Your task to perform on an android device: Play the last video I watched on Youtube Image 0: 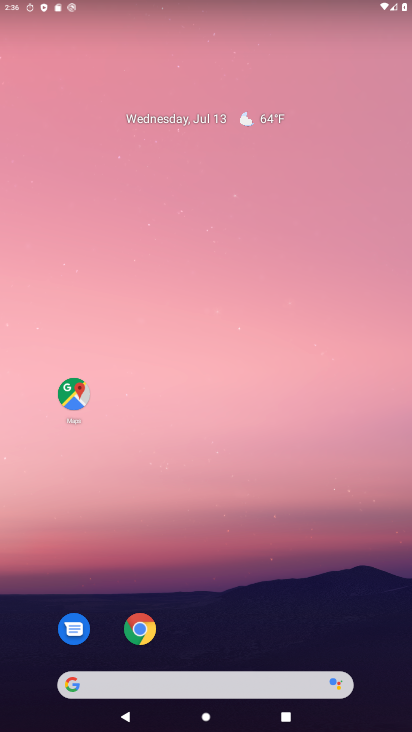
Step 0: drag from (289, 685) to (291, 87)
Your task to perform on an android device: Play the last video I watched on Youtube Image 1: 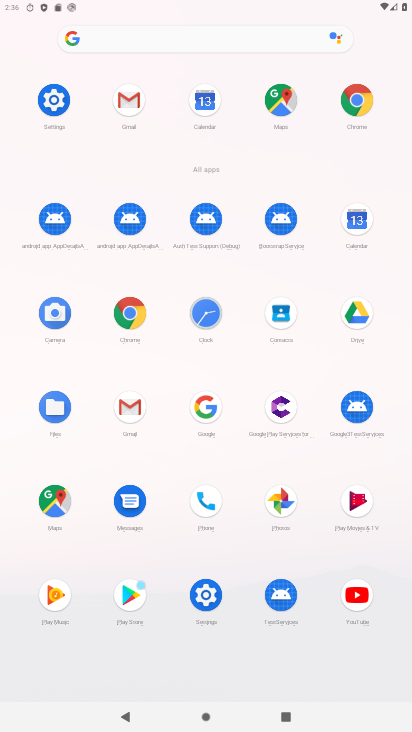
Step 1: click (355, 595)
Your task to perform on an android device: Play the last video I watched on Youtube Image 2: 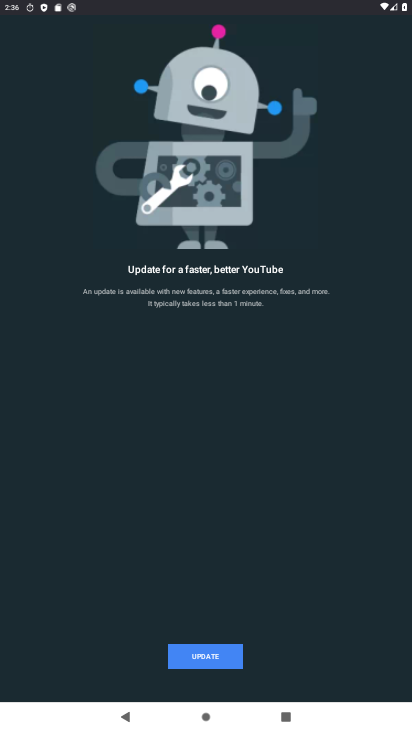
Step 2: click (230, 653)
Your task to perform on an android device: Play the last video I watched on Youtube Image 3: 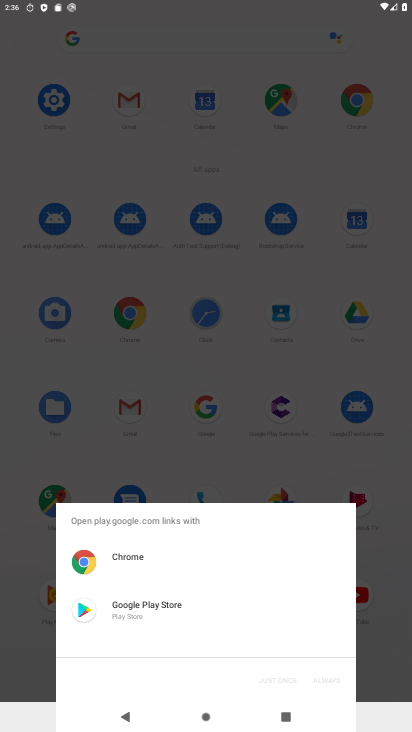
Step 3: click (141, 616)
Your task to perform on an android device: Play the last video I watched on Youtube Image 4: 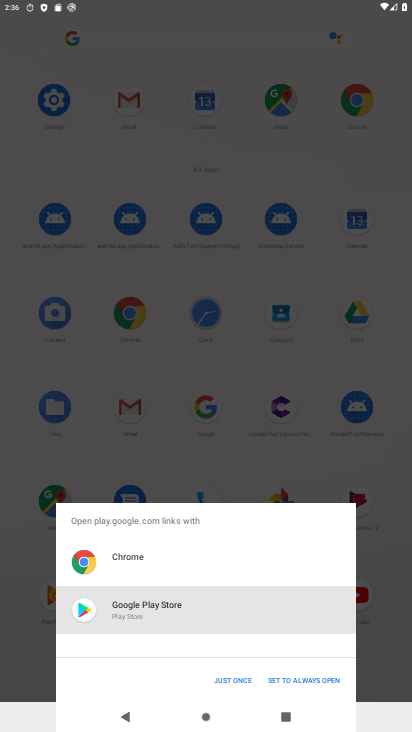
Step 4: click (228, 684)
Your task to perform on an android device: Play the last video I watched on Youtube Image 5: 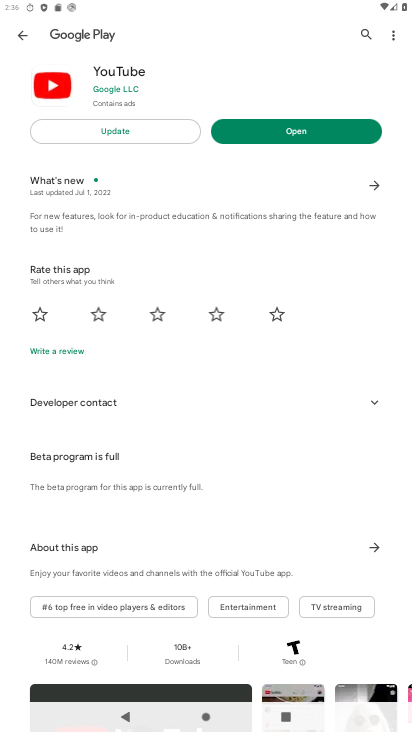
Step 5: click (127, 134)
Your task to perform on an android device: Play the last video I watched on Youtube Image 6: 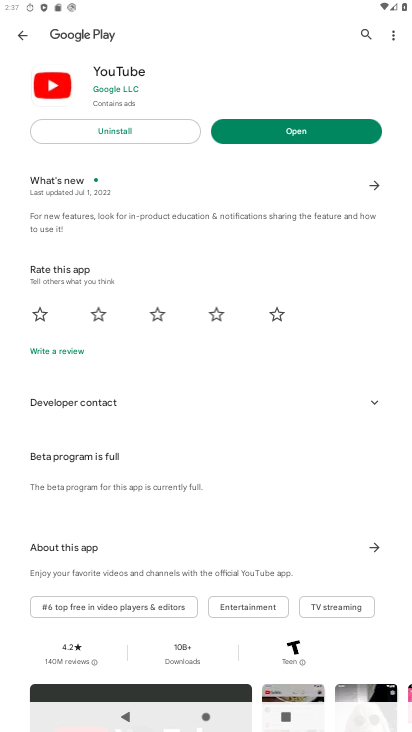
Step 6: click (282, 130)
Your task to perform on an android device: Play the last video I watched on Youtube Image 7: 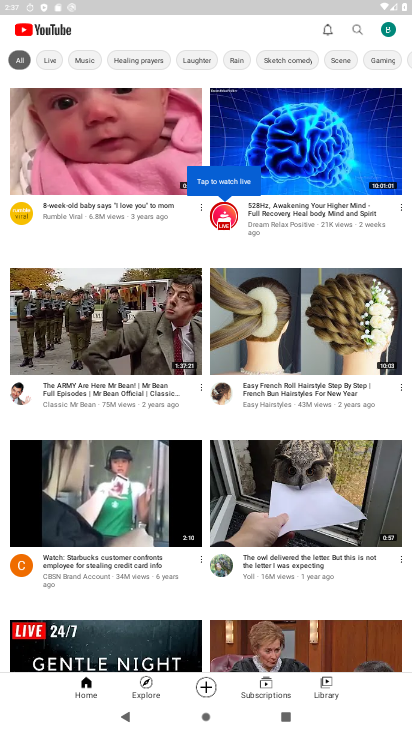
Step 7: task complete